Your task to perform on an android device: see tabs open on other devices in the chrome app Image 0: 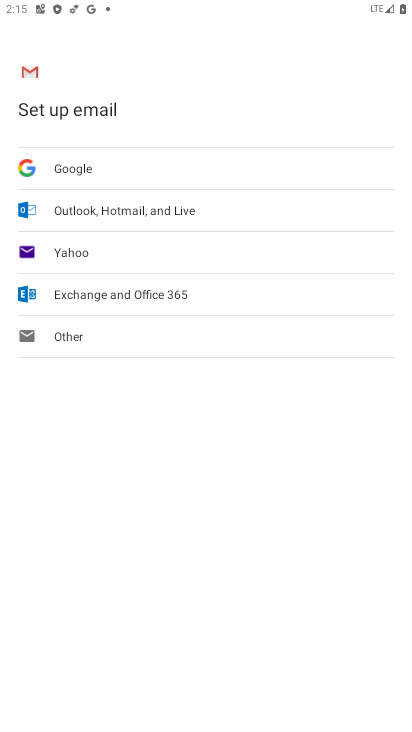
Step 0: press home button
Your task to perform on an android device: see tabs open on other devices in the chrome app Image 1: 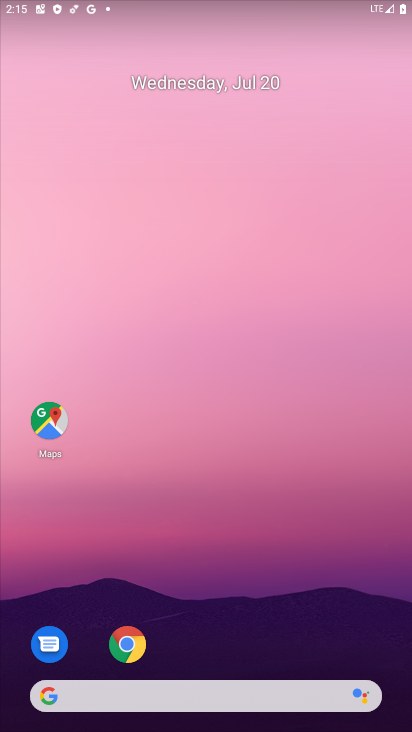
Step 1: click (126, 643)
Your task to perform on an android device: see tabs open on other devices in the chrome app Image 2: 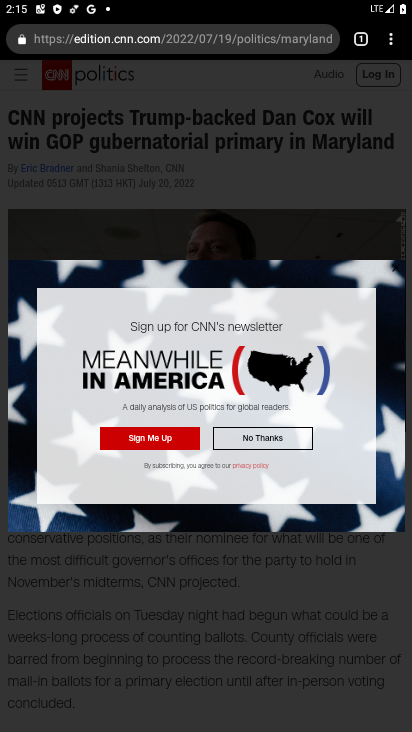
Step 2: click (391, 40)
Your task to perform on an android device: see tabs open on other devices in the chrome app Image 3: 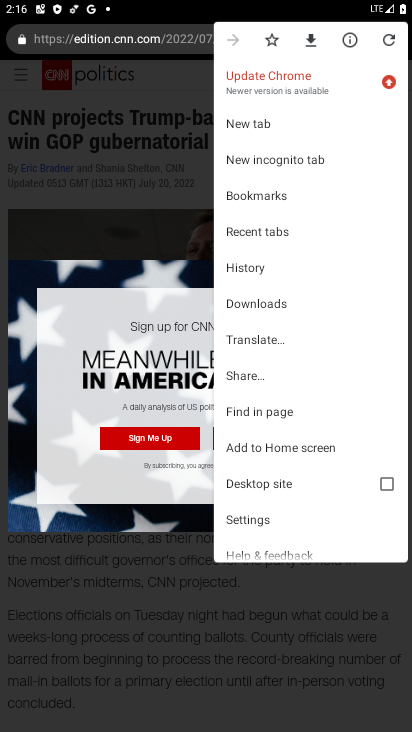
Step 3: click (279, 230)
Your task to perform on an android device: see tabs open on other devices in the chrome app Image 4: 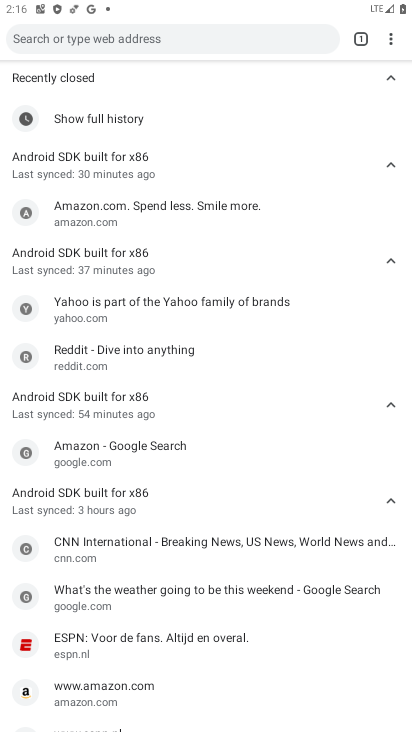
Step 4: task complete